Your task to perform on an android device: Open eBay Image 0: 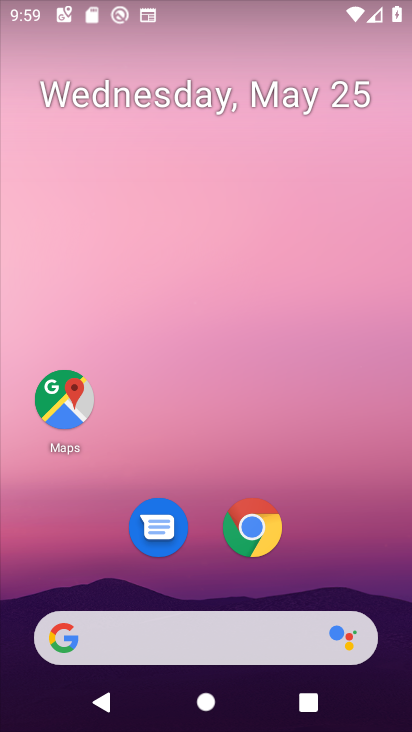
Step 0: click (261, 532)
Your task to perform on an android device: Open eBay Image 1: 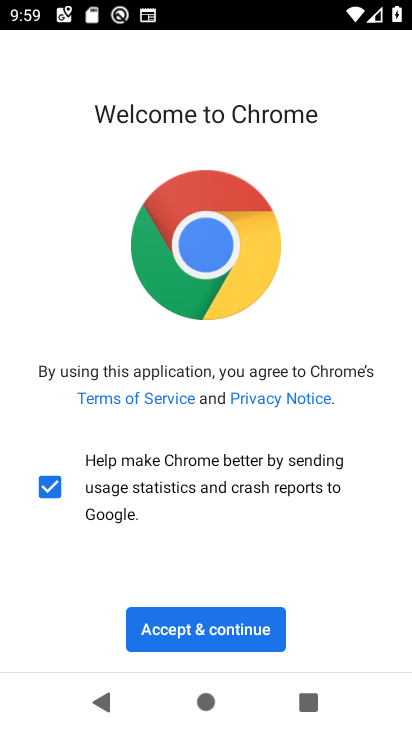
Step 1: click (224, 609)
Your task to perform on an android device: Open eBay Image 2: 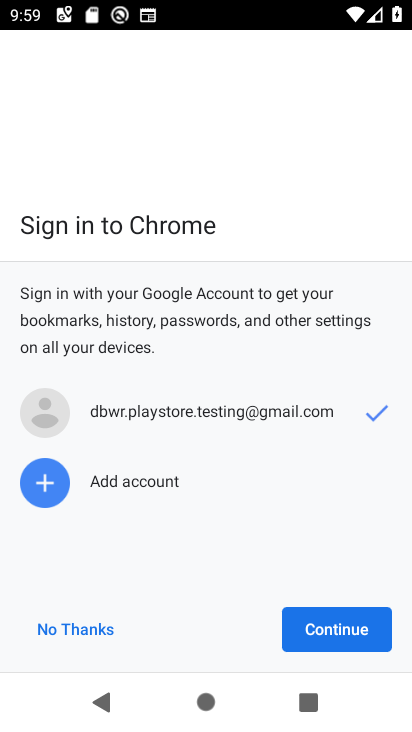
Step 2: click (346, 635)
Your task to perform on an android device: Open eBay Image 3: 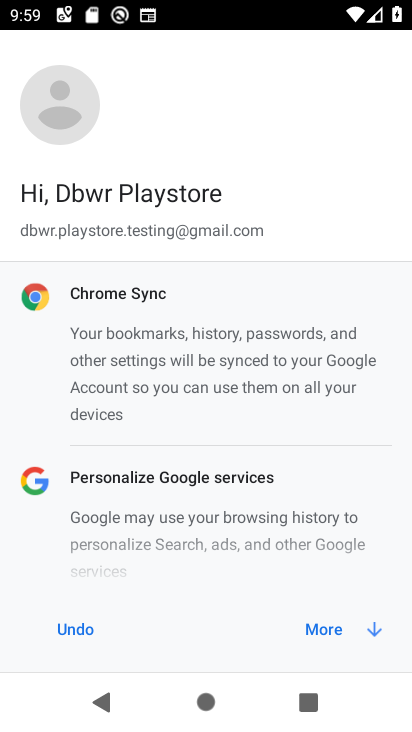
Step 3: click (341, 615)
Your task to perform on an android device: Open eBay Image 4: 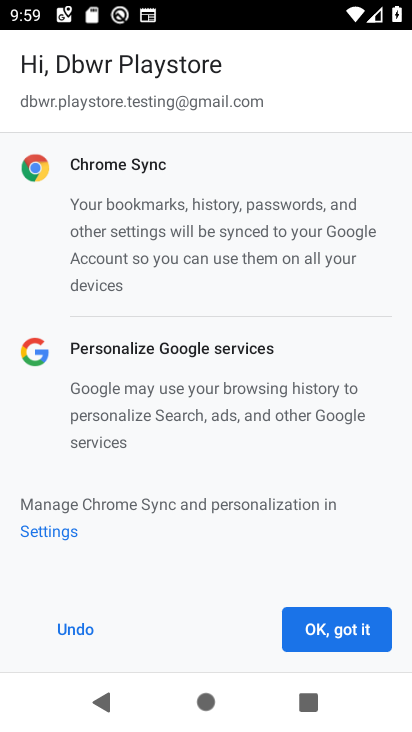
Step 4: click (341, 615)
Your task to perform on an android device: Open eBay Image 5: 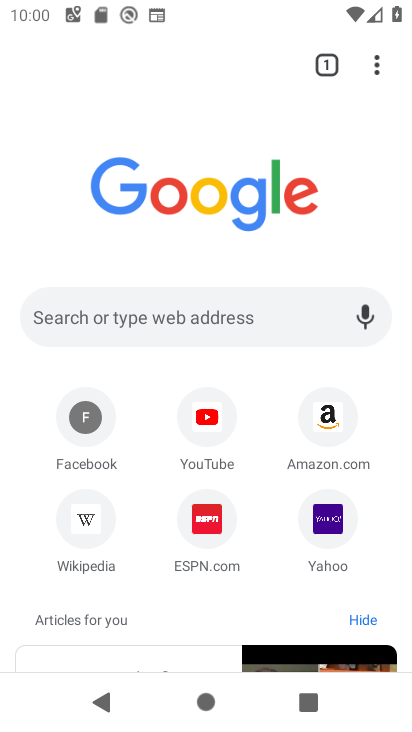
Step 5: click (178, 307)
Your task to perform on an android device: Open eBay Image 6: 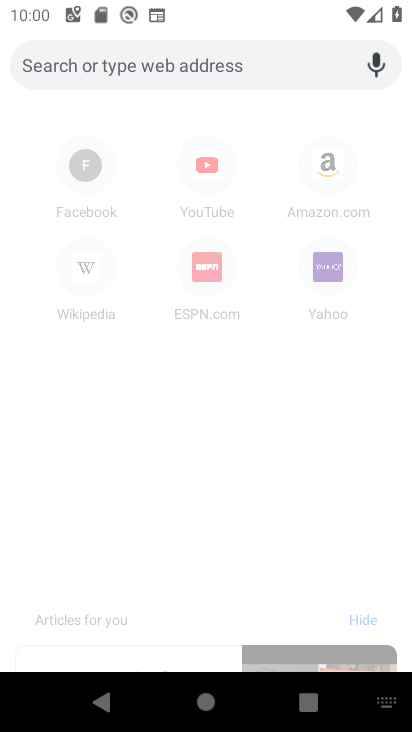
Step 6: type "ebay.com"
Your task to perform on an android device: Open eBay Image 7: 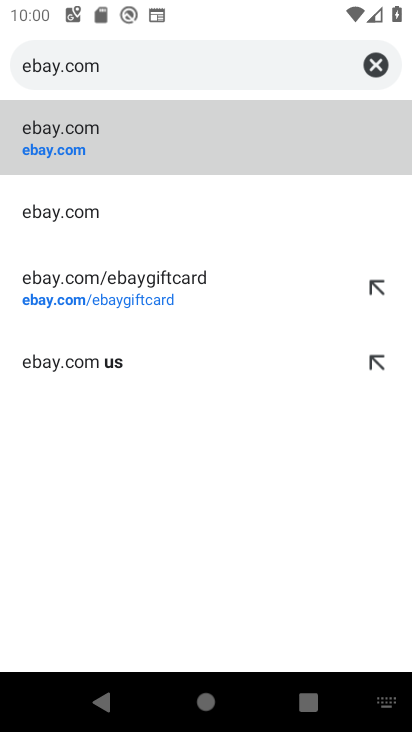
Step 7: click (148, 141)
Your task to perform on an android device: Open eBay Image 8: 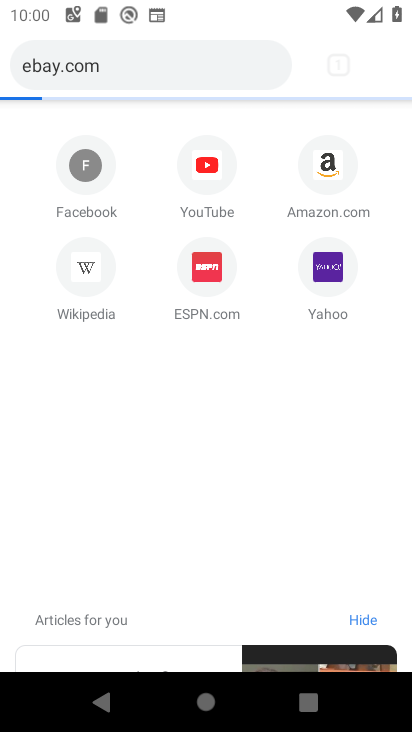
Step 8: task complete